Your task to perform on an android device: Open Google Chrome and click the shortcut for Amazon.com Image 0: 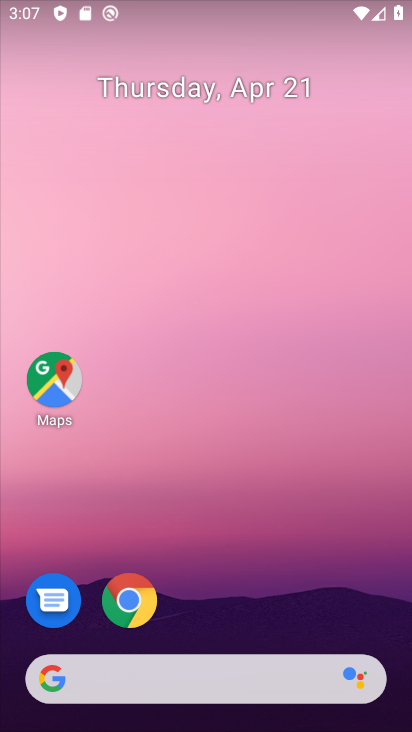
Step 0: click (115, 605)
Your task to perform on an android device: Open Google Chrome and click the shortcut for Amazon.com Image 1: 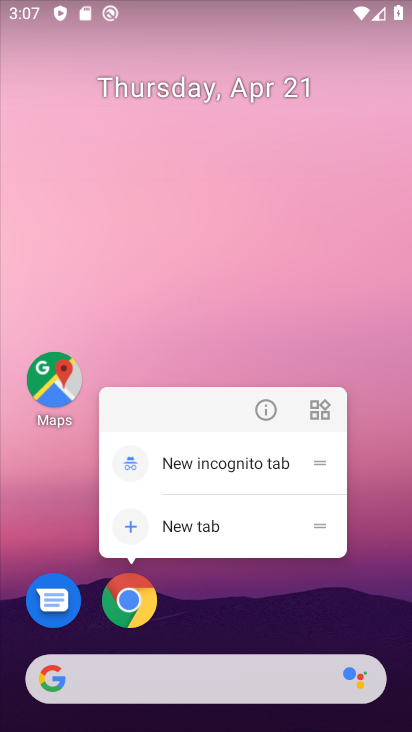
Step 1: click (115, 605)
Your task to perform on an android device: Open Google Chrome and click the shortcut for Amazon.com Image 2: 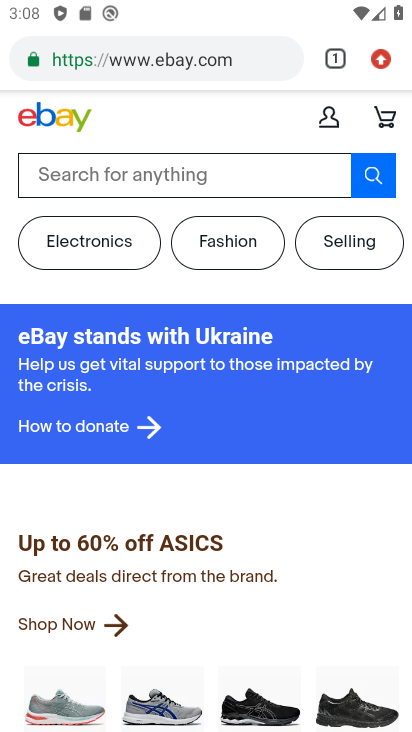
Step 2: click (372, 60)
Your task to perform on an android device: Open Google Chrome and click the shortcut for Amazon.com Image 3: 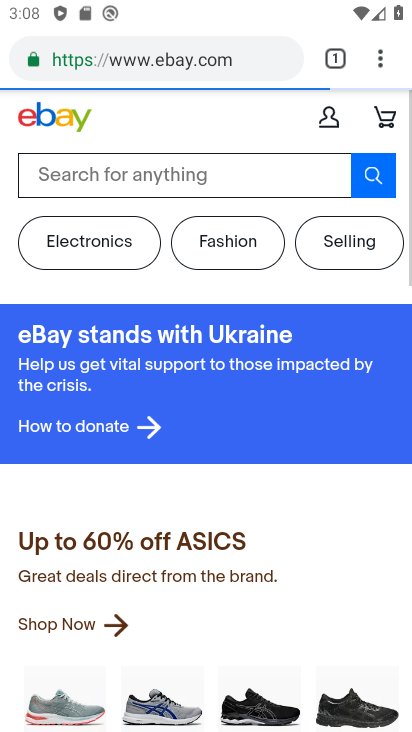
Step 3: click (371, 60)
Your task to perform on an android device: Open Google Chrome and click the shortcut for Amazon.com Image 4: 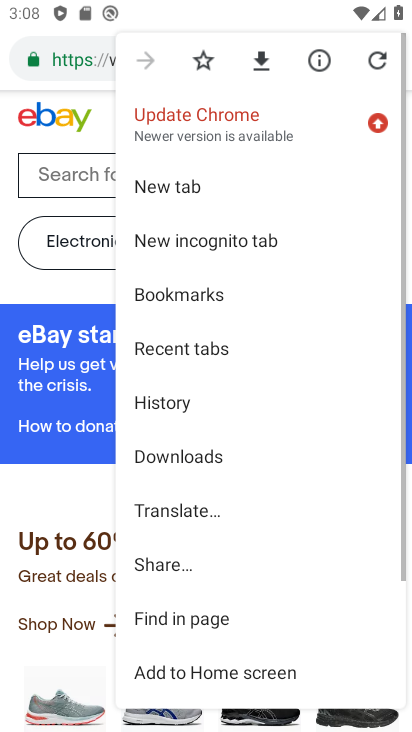
Step 4: click (273, 189)
Your task to perform on an android device: Open Google Chrome and click the shortcut for Amazon.com Image 5: 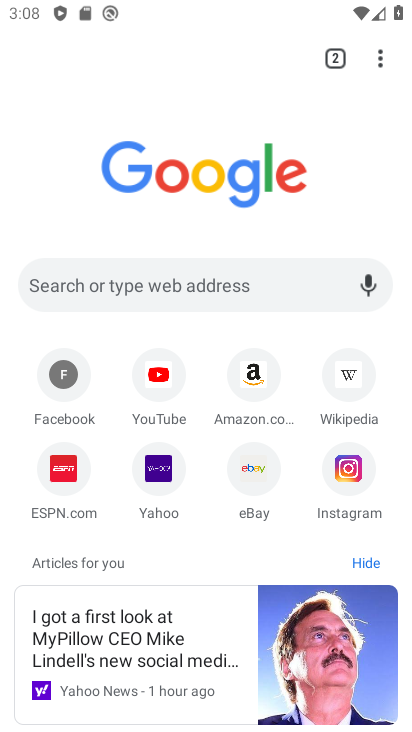
Step 5: click (252, 372)
Your task to perform on an android device: Open Google Chrome and click the shortcut for Amazon.com Image 6: 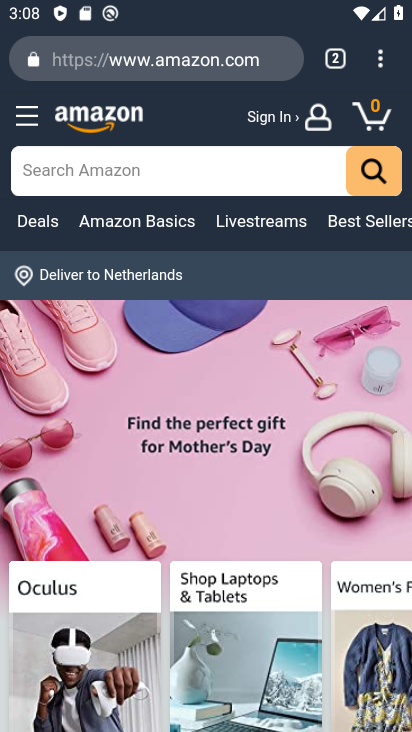
Step 6: task complete